Your task to perform on an android device: Open the web browser Image 0: 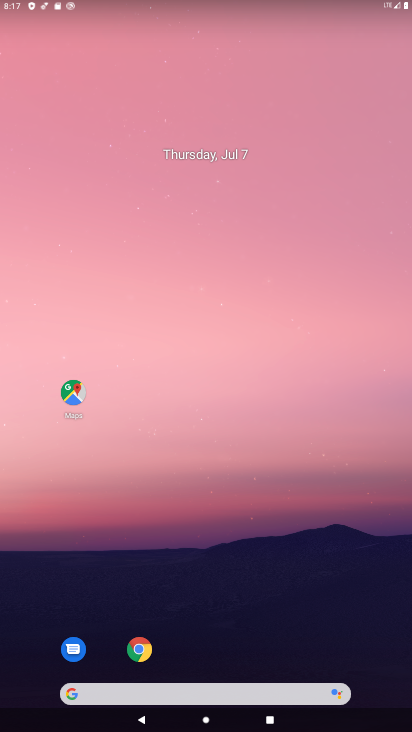
Step 0: click (139, 655)
Your task to perform on an android device: Open the web browser Image 1: 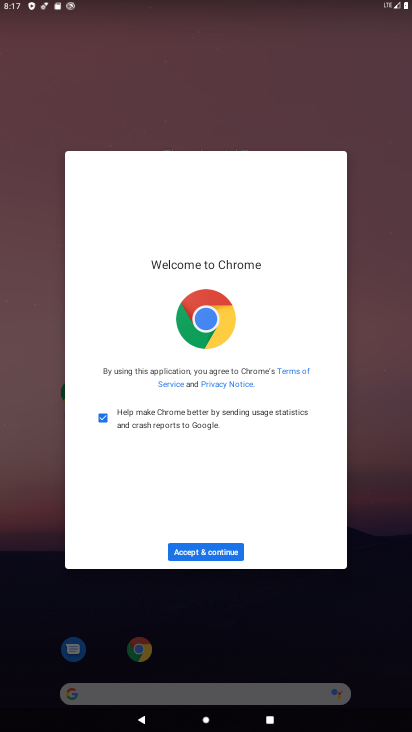
Step 1: click (207, 548)
Your task to perform on an android device: Open the web browser Image 2: 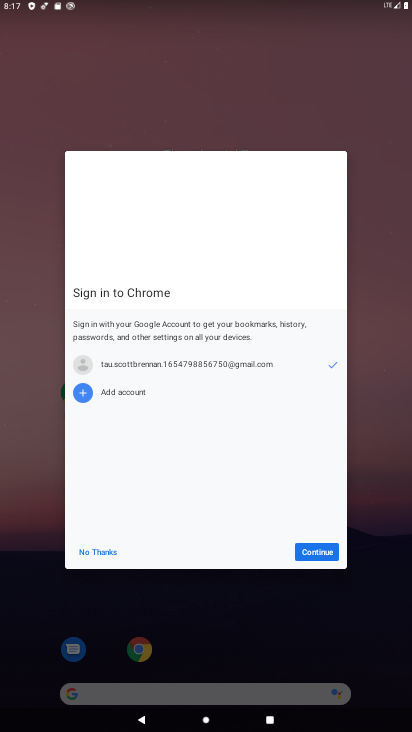
Step 2: click (324, 551)
Your task to perform on an android device: Open the web browser Image 3: 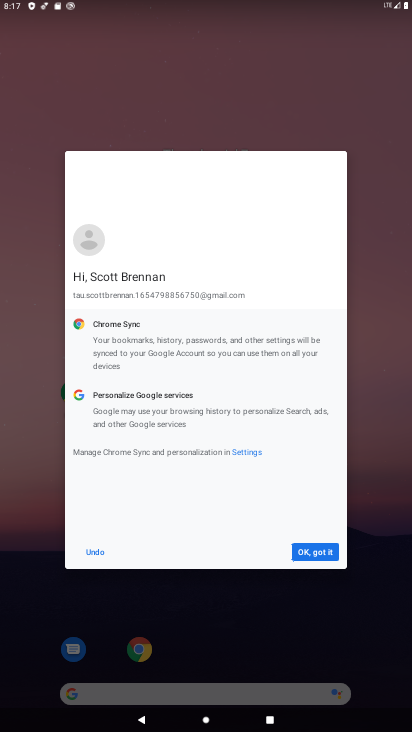
Step 3: click (324, 551)
Your task to perform on an android device: Open the web browser Image 4: 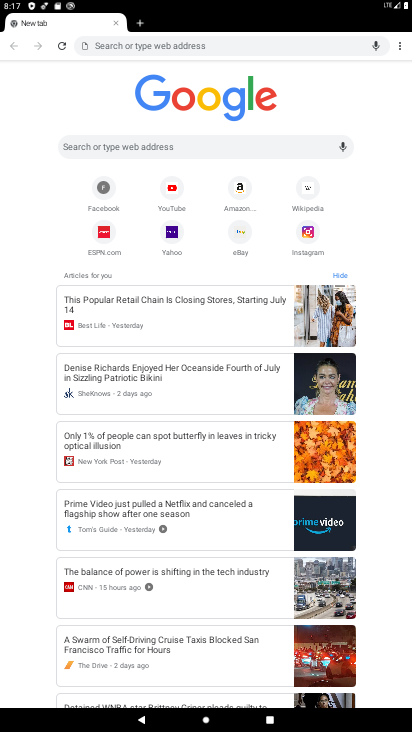
Step 4: task complete